Your task to perform on an android device: open app "VLC for Android" (install if not already installed) Image 0: 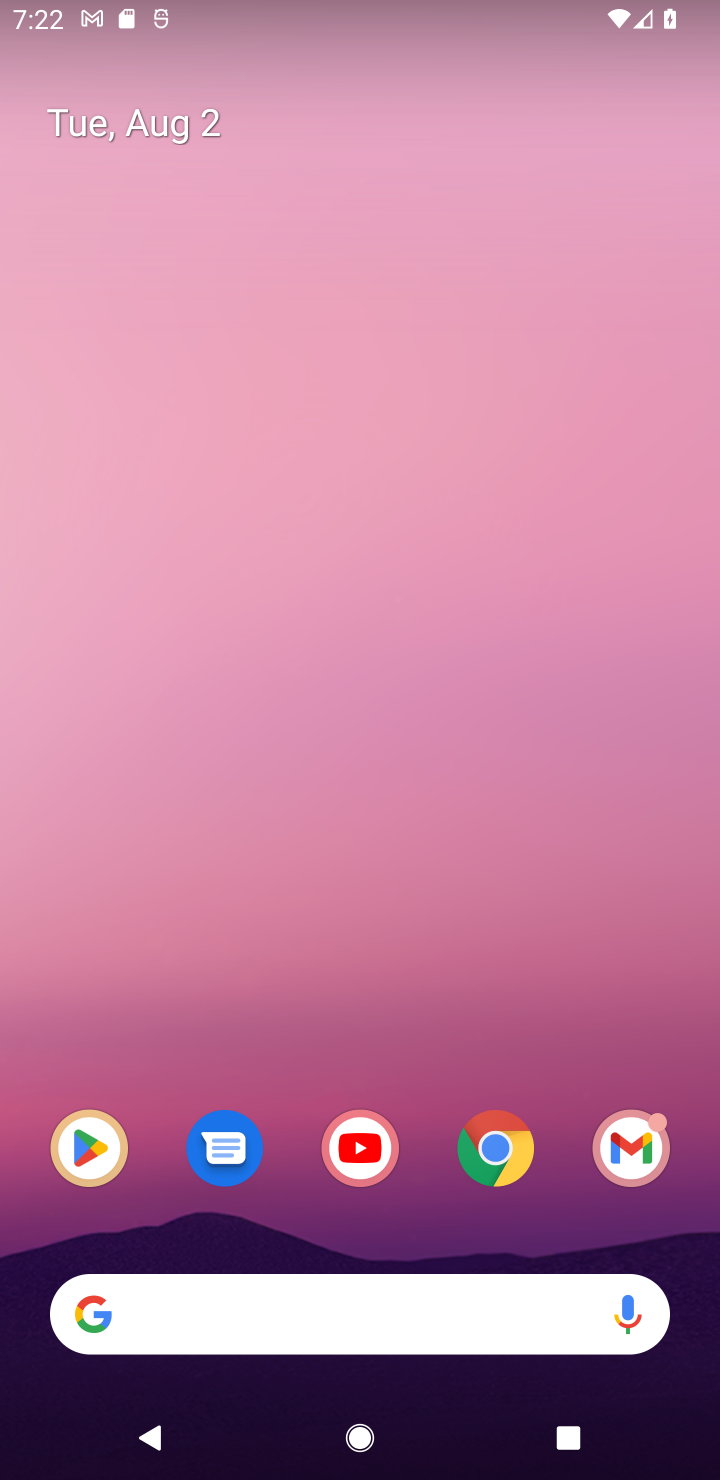
Step 0: drag from (421, 780) to (248, 161)
Your task to perform on an android device: open app "VLC for Android" (install if not already installed) Image 1: 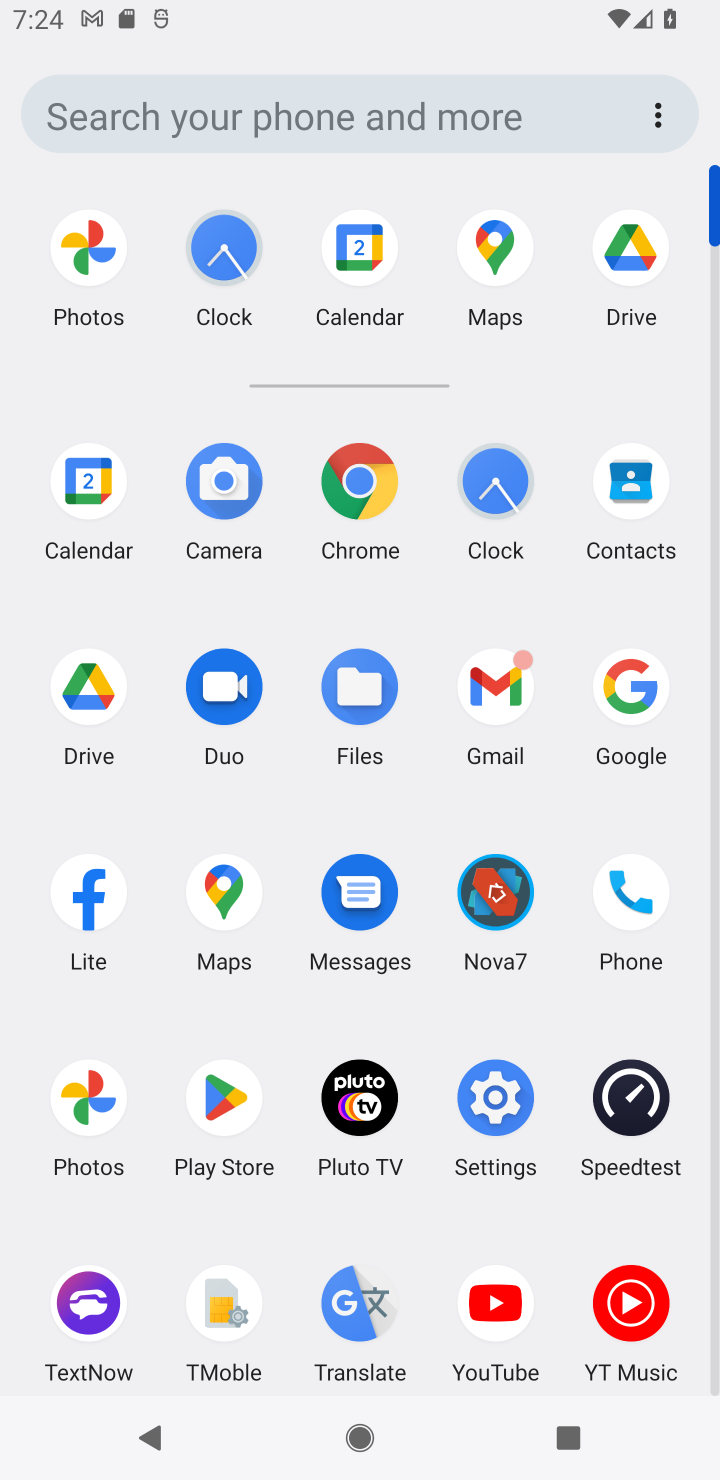
Step 1: click (215, 1084)
Your task to perform on an android device: open app "VLC for Android" (install if not already installed) Image 2: 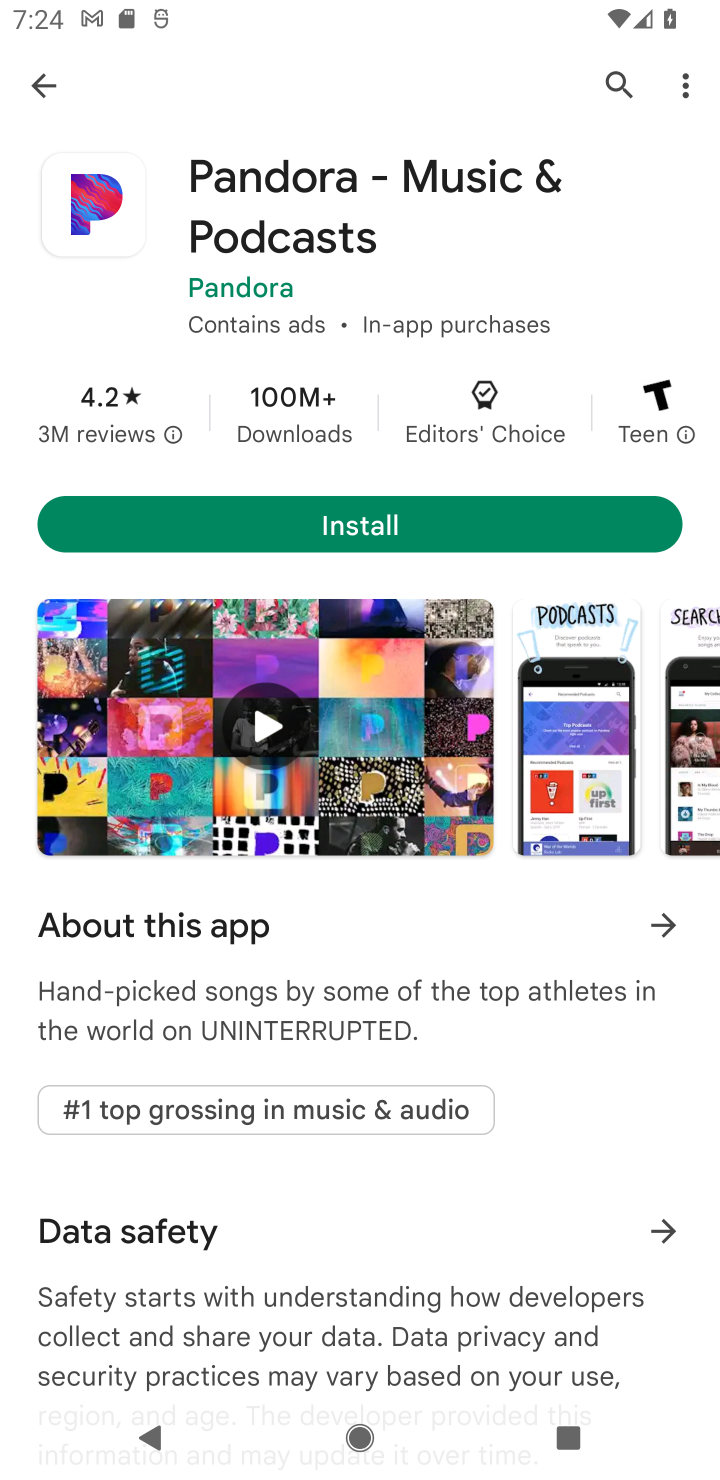
Step 2: press back button
Your task to perform on an android device: open app "VLC for Android" (install if not already installed) Image 3: 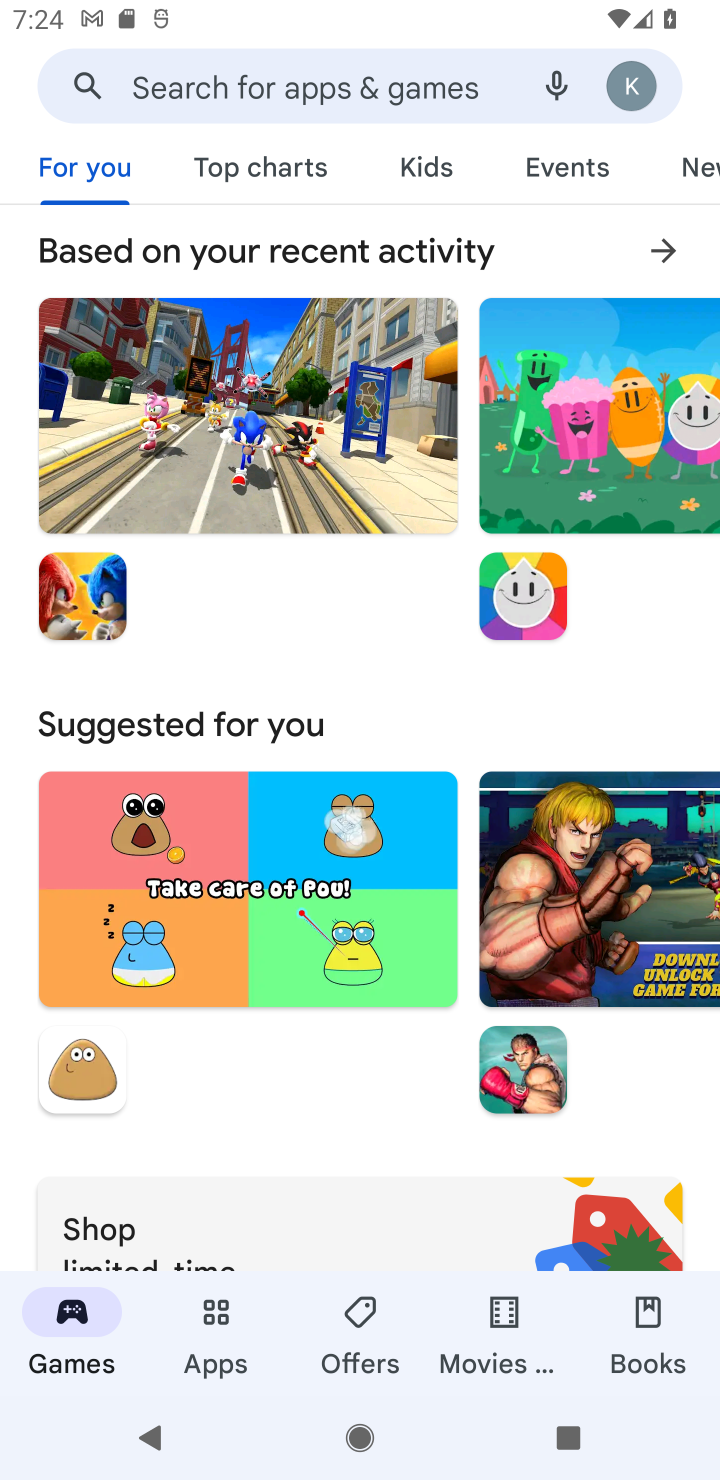
Step 3: click (195, 83)
Your task to perform on an android device: open app "VLC for Android" (install if not already installed) Image 4: 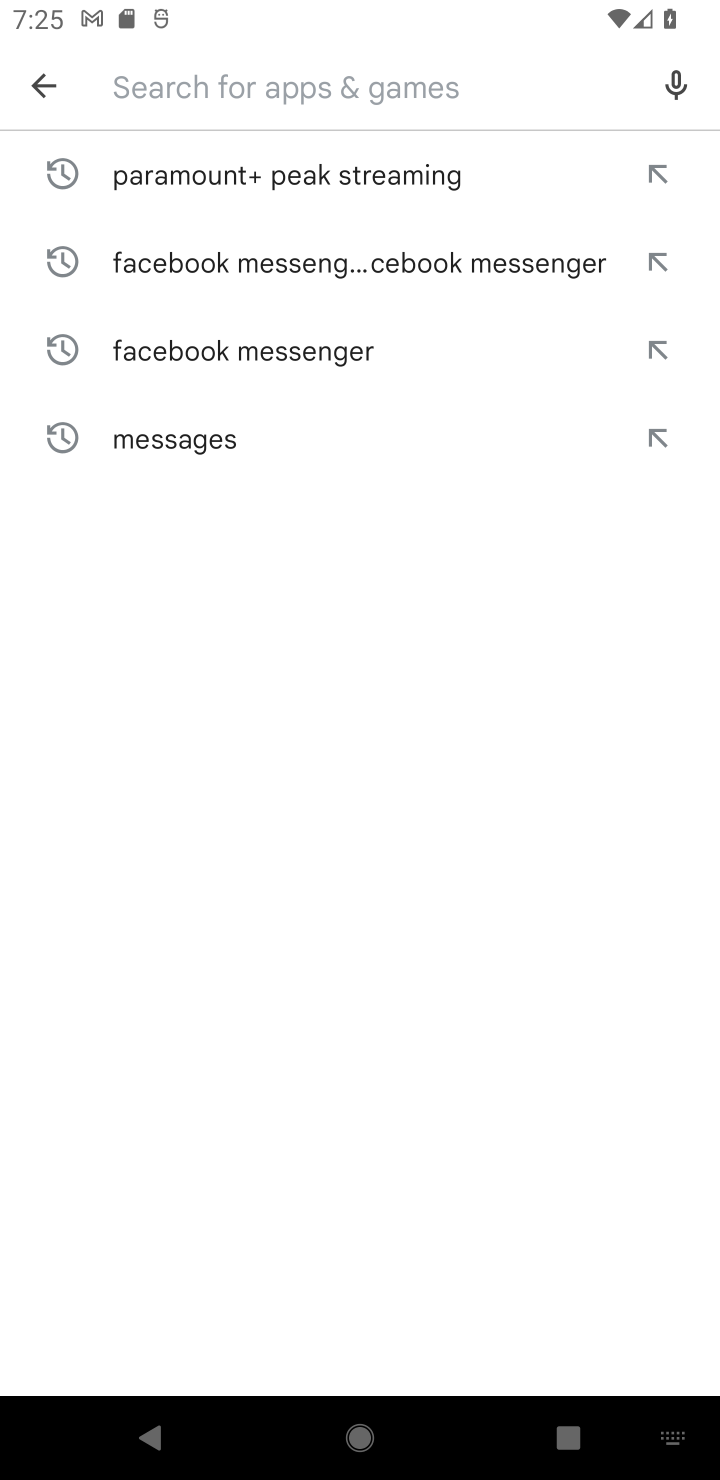
Step 4: type "VLC for Android"
Your task to perform on an android device: open app "VLC for Android" (install if not already installed) Image 5: 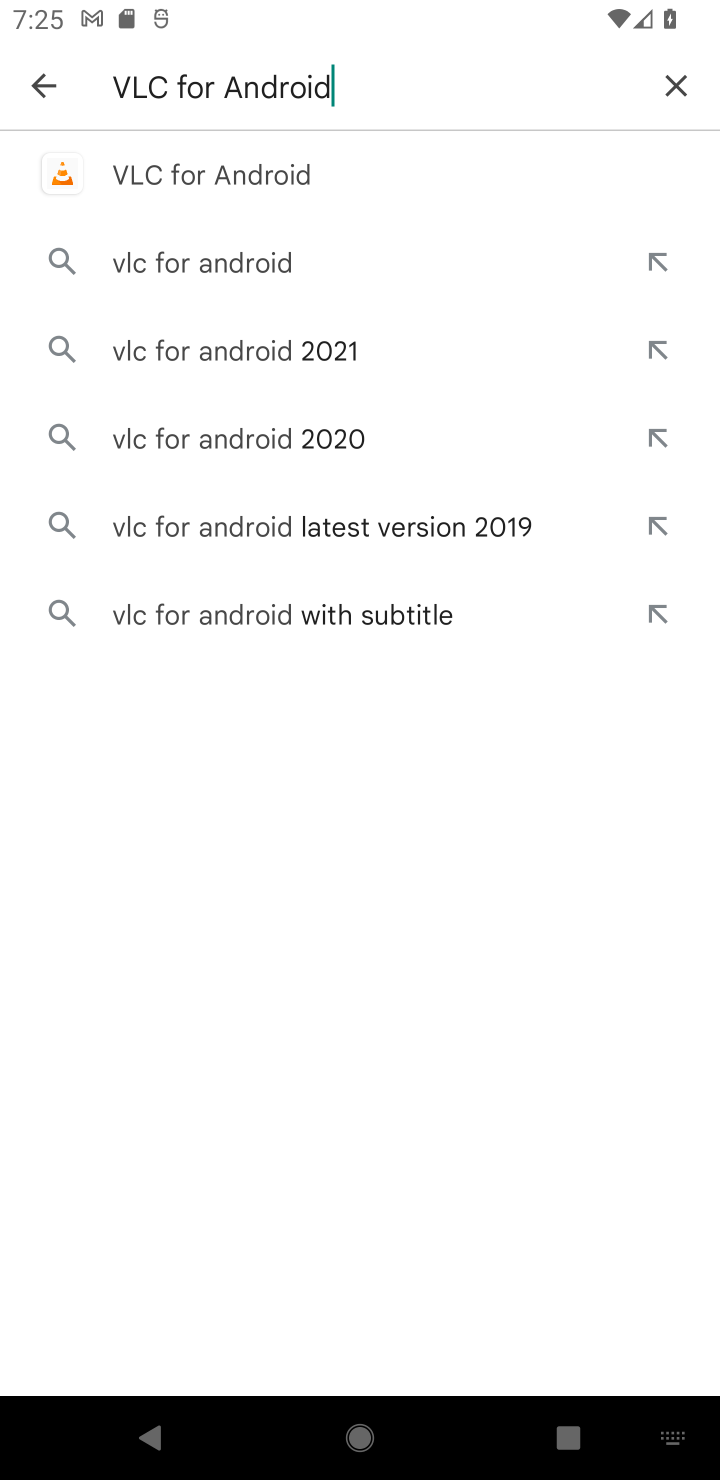
Step 5: click (294, 174)
Your task to perform on an android device: open app "VLC for Android" (install if not already installed) Image 6: 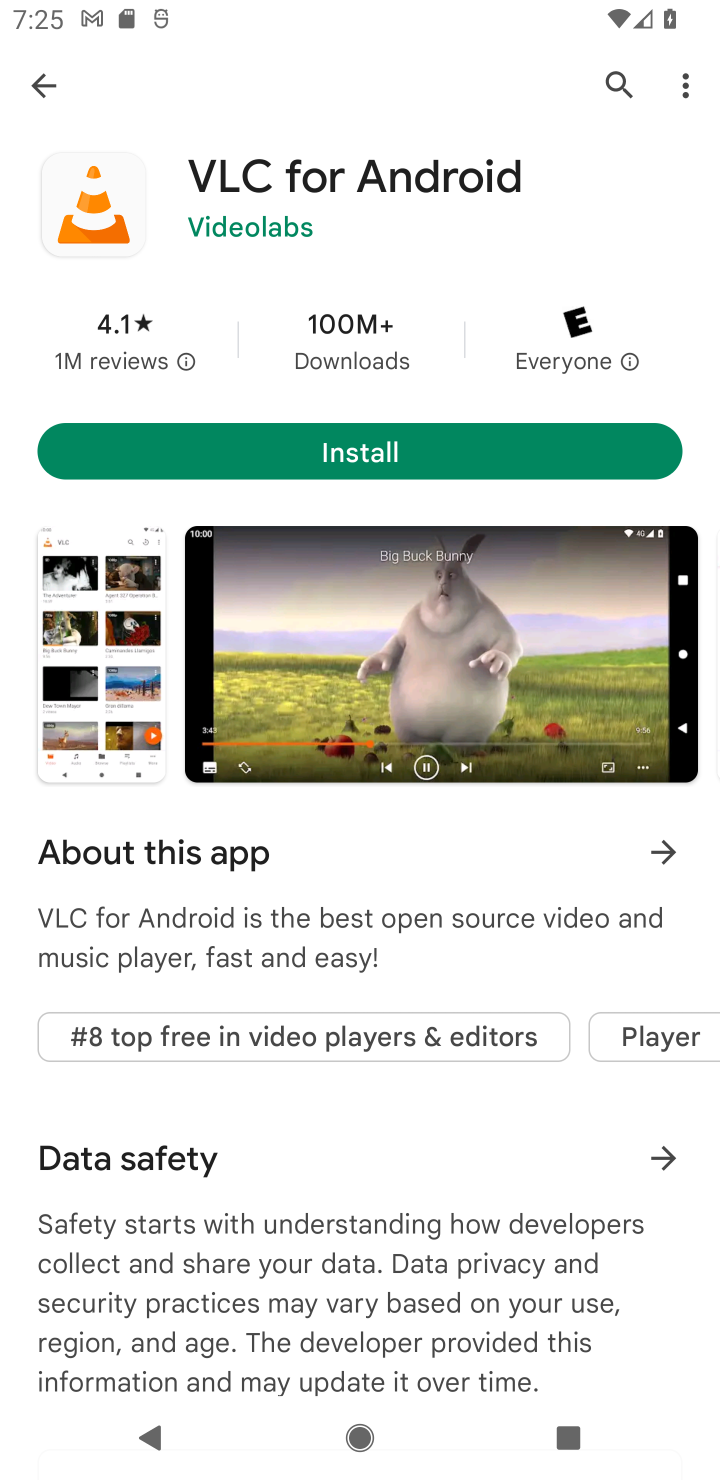
Step 6: task complete